Your task to perform on an android device: open chrome and create a bookmark for the current page Image 0: 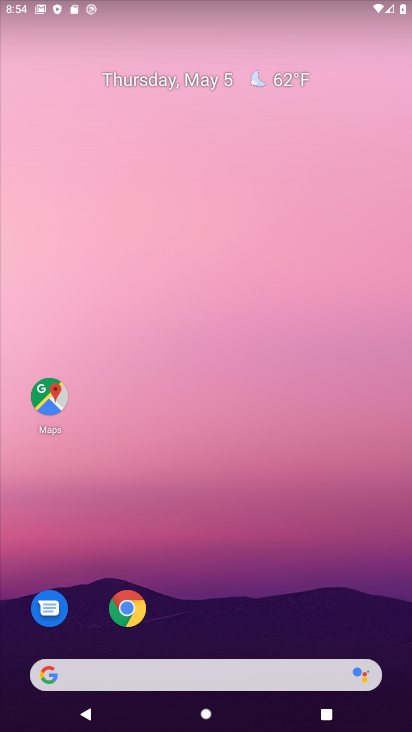
Step 0: drag from (372, 609) to (313, 33)
Your task to perform on an android device: open chrome and create a bookmark for the current page Image 1: 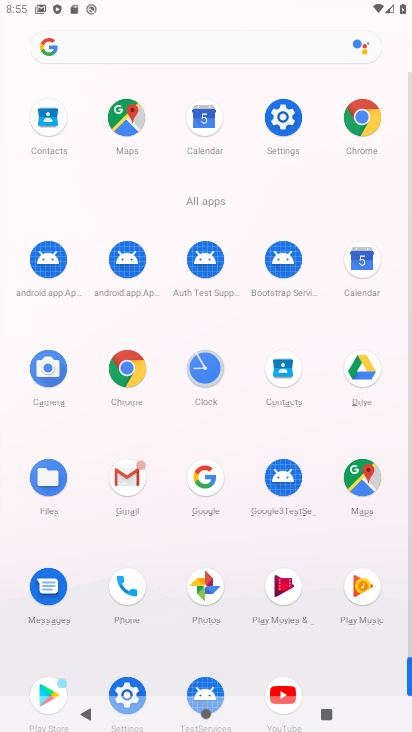
Step 1: click (126, 369)
Your task to perform on an android device: open chrome and create a bookmark for the current page Image 2: 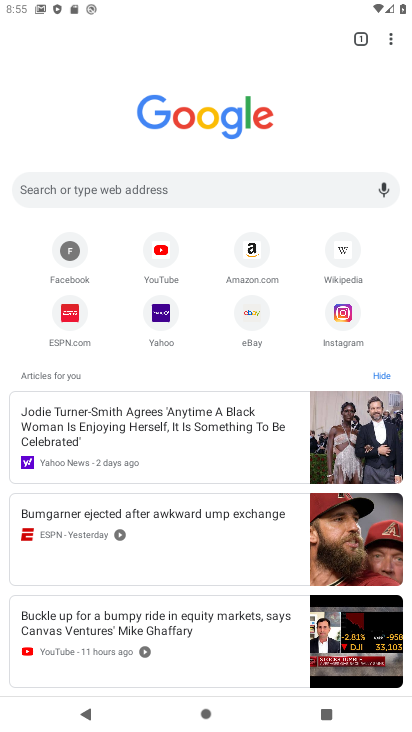
Step 2: task complete